Your task to perform on an android device: What's the news in Laos? Image 0: 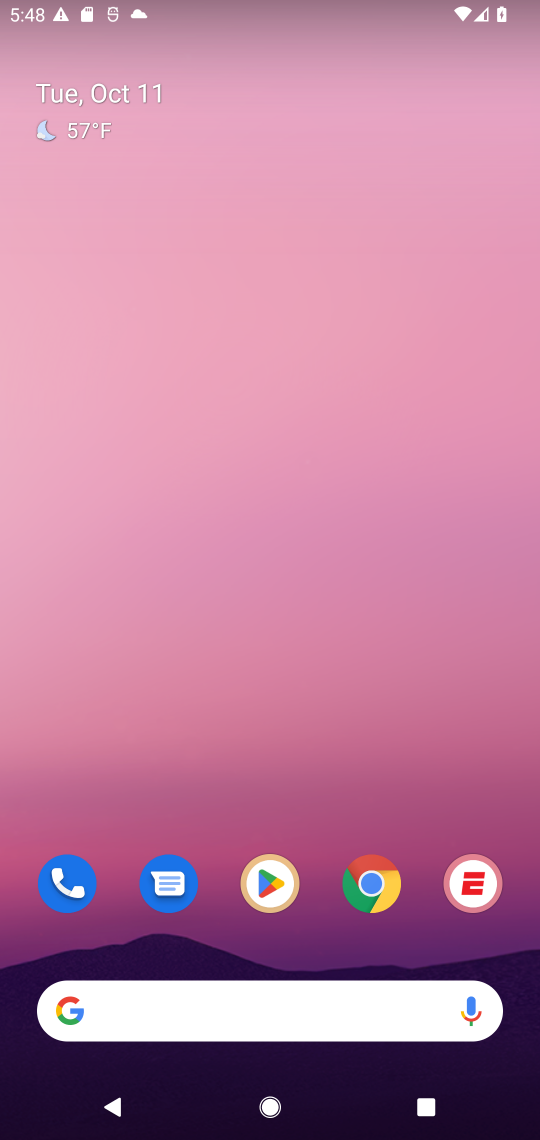
Step 0: drag from (297, 746) to (339, 132)
Your task to perform on an android device: What's the news in Laos? Image 1: 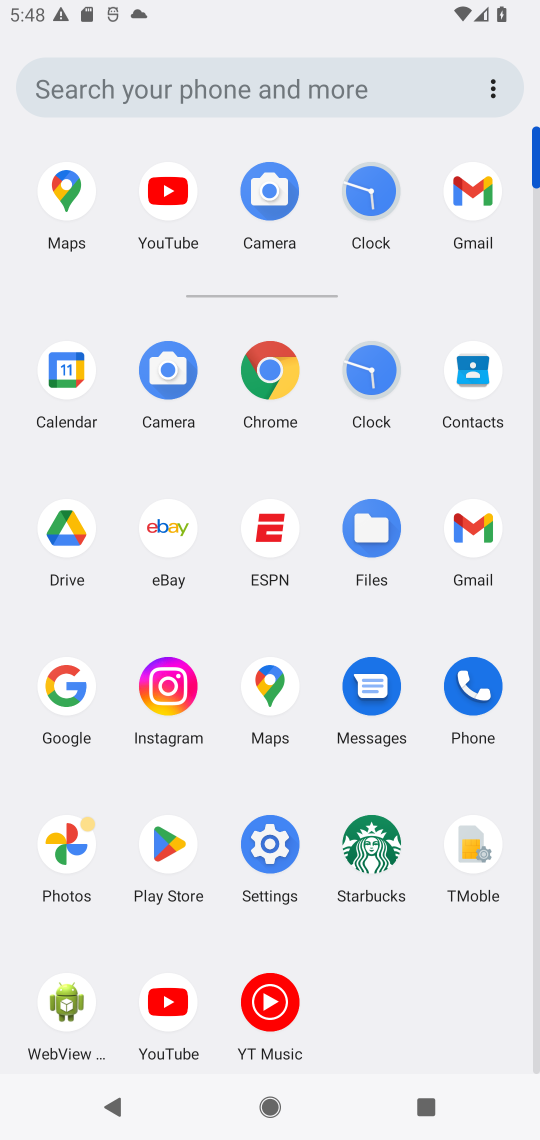
Step 1: click (275, 374)
Your task to perform on an android device: What's the news in Laos? Image 2: 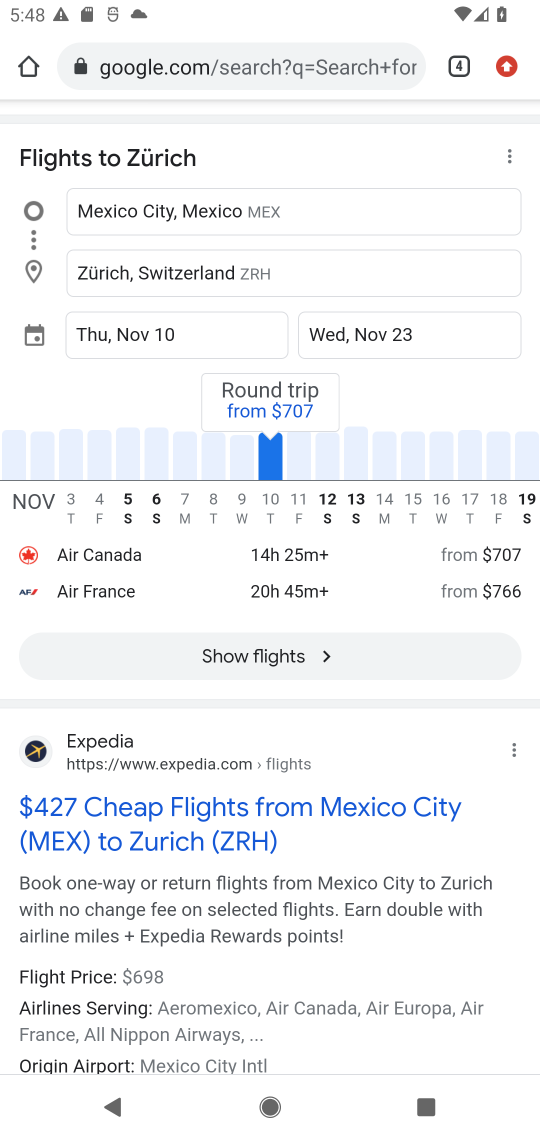
Step 2: click (354, 70)
Your task to perform on an android device: What's the news in Laos? Image 3: 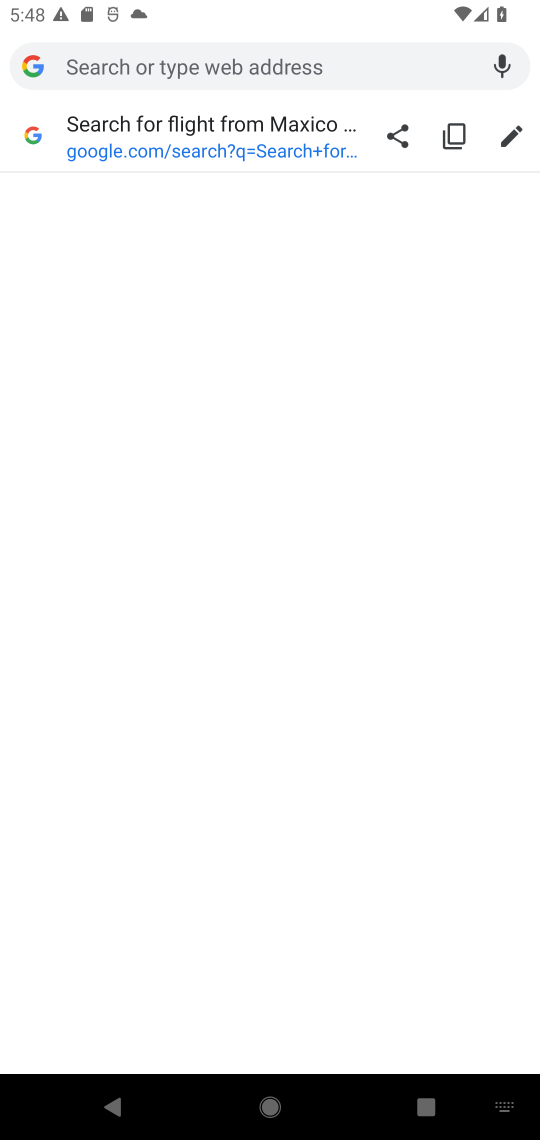
Step 3: type "What's the new in Laos?"
Your task to perform on an android device: What's the news in Laos? Image 4: 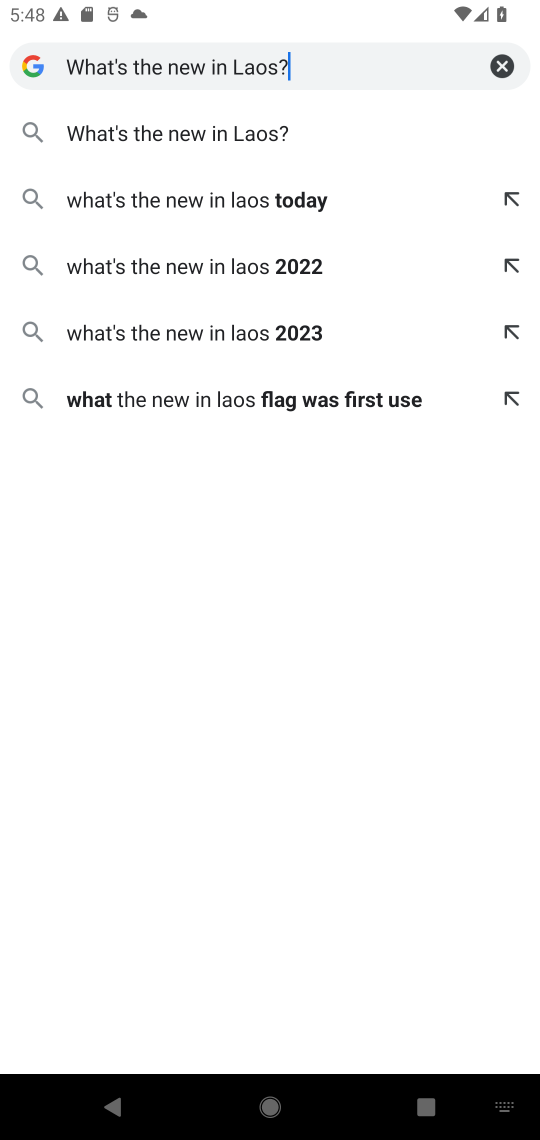
Step 4: press enter
Your task to perform on an android device: What's the news in Laos? Image 5: 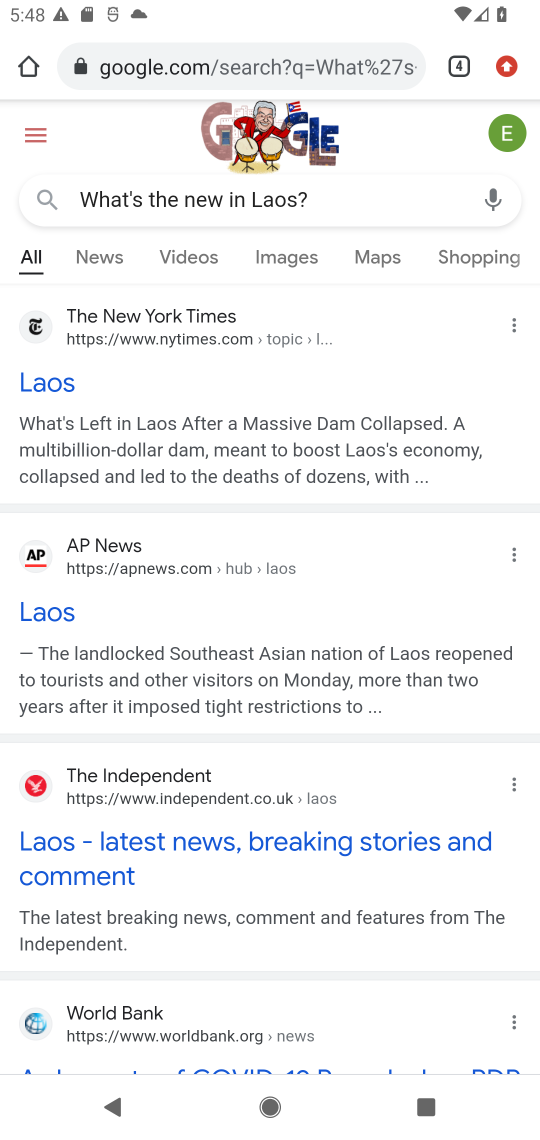
Step 5: click (51, 400)
Your task to perform on an android device: What's the news in Laos? Image 6: 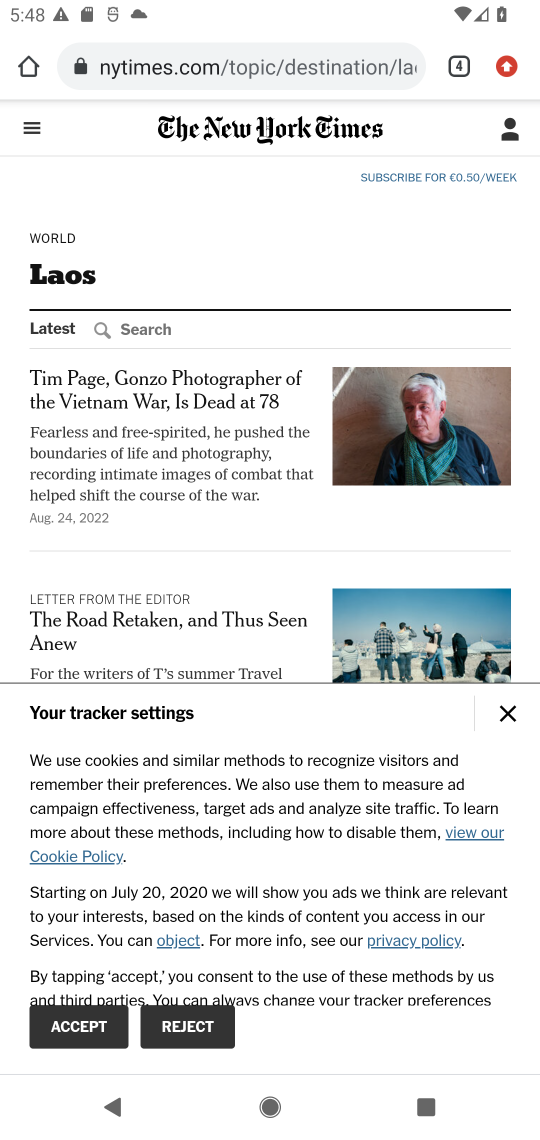
Step 6: task complete